Your task to perform on an android device: Open Google Chrome and open the bookmarks view Image 0: 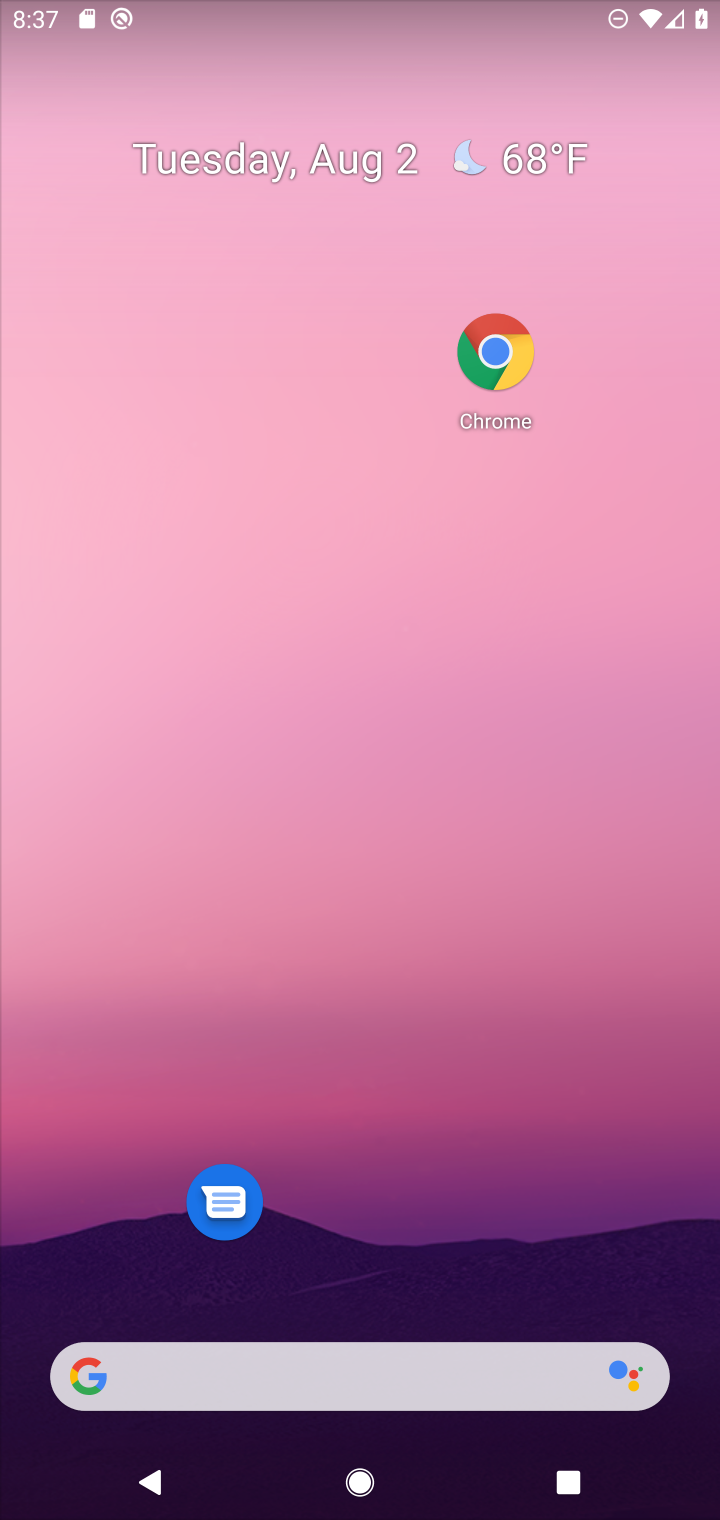
Step 0: click (494, 364)
Your task to perform on an android device: Open Google Chrome and open the bookmarks view Image 1: 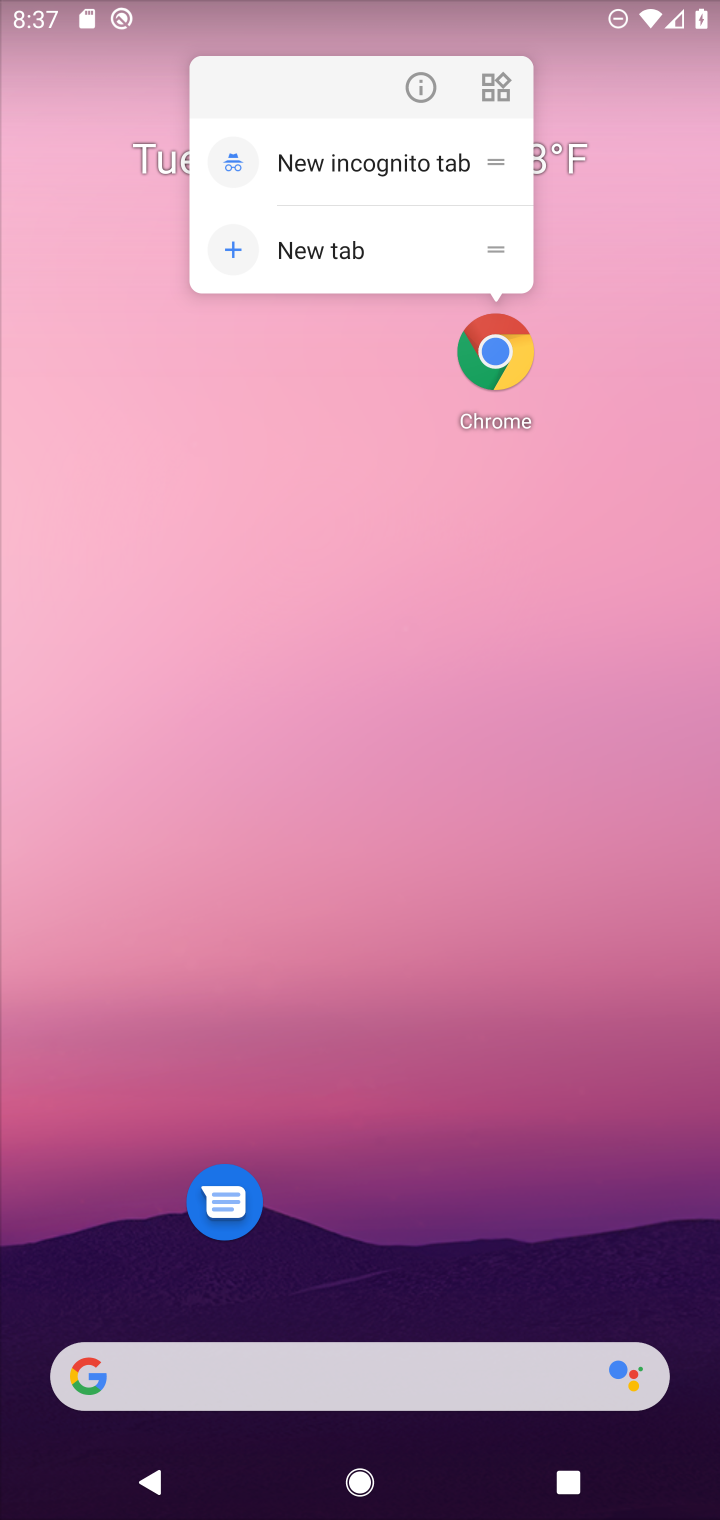
Step 1: click (494, 364)
Your task to perform on an android device: Open Google Chrome and open the bookmarks view Image 2: 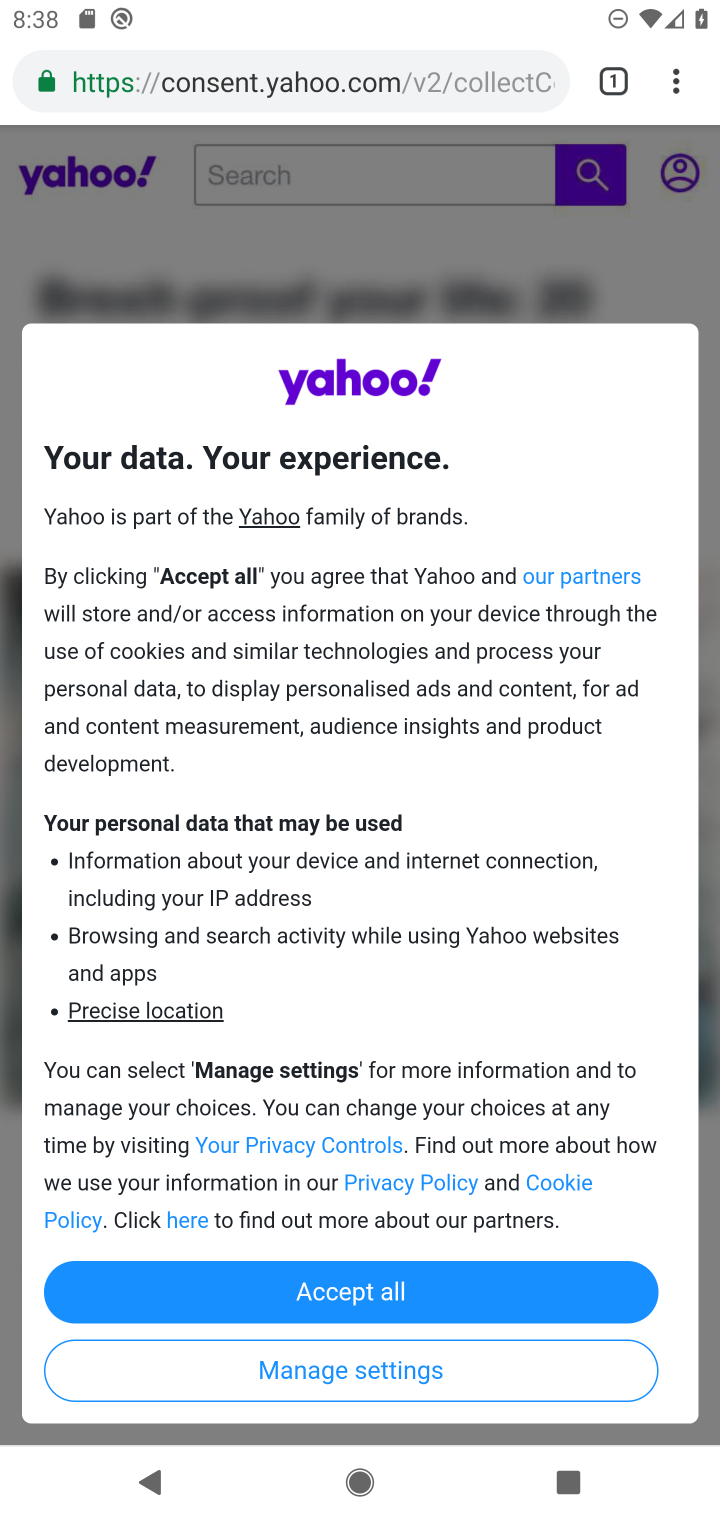
Step 2: click (681, 87)
Your task to perform on an android device: Open Google Chrome and open the bookmarks view Image 3: 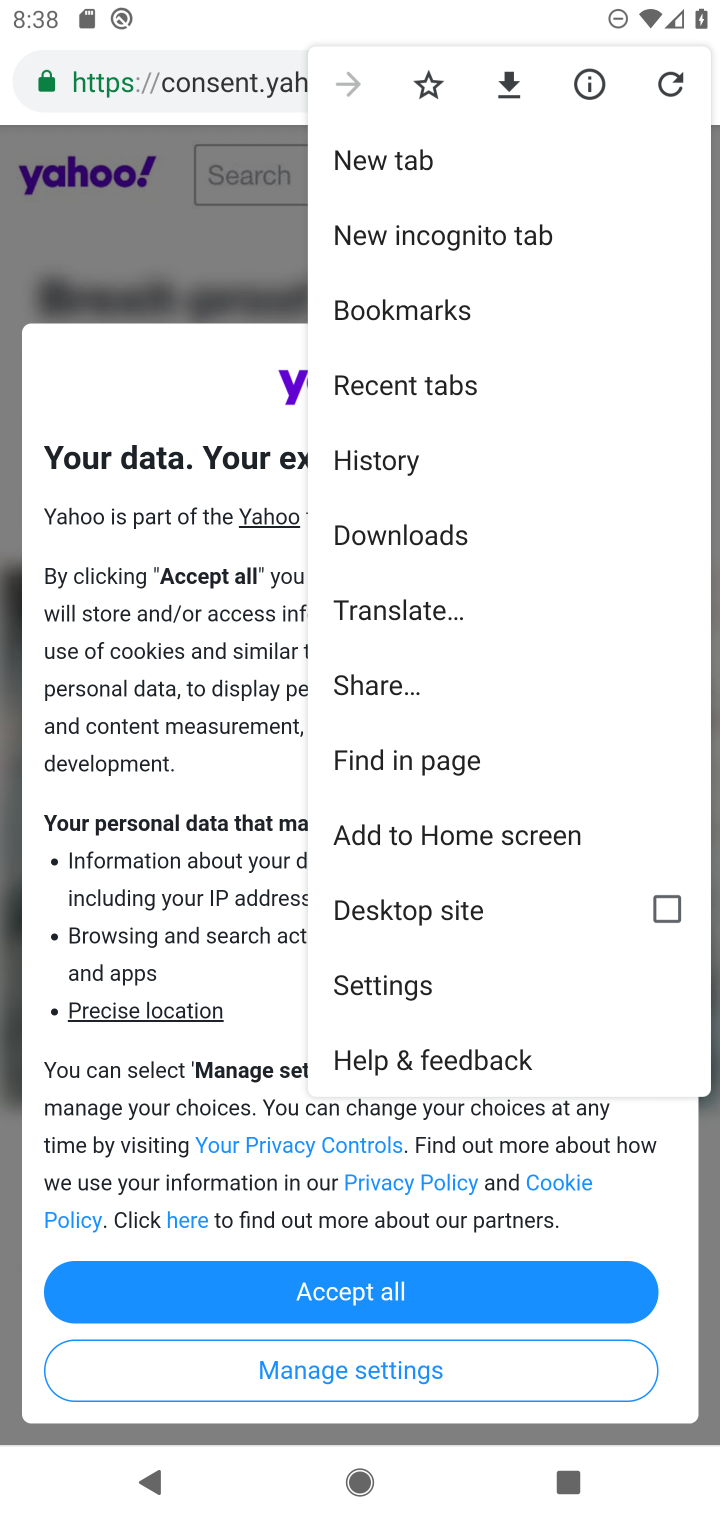
Step 3: click (467, 317)
Your task to perform on an android device: Open Google Chrome and open the bookmarks view Image 4: 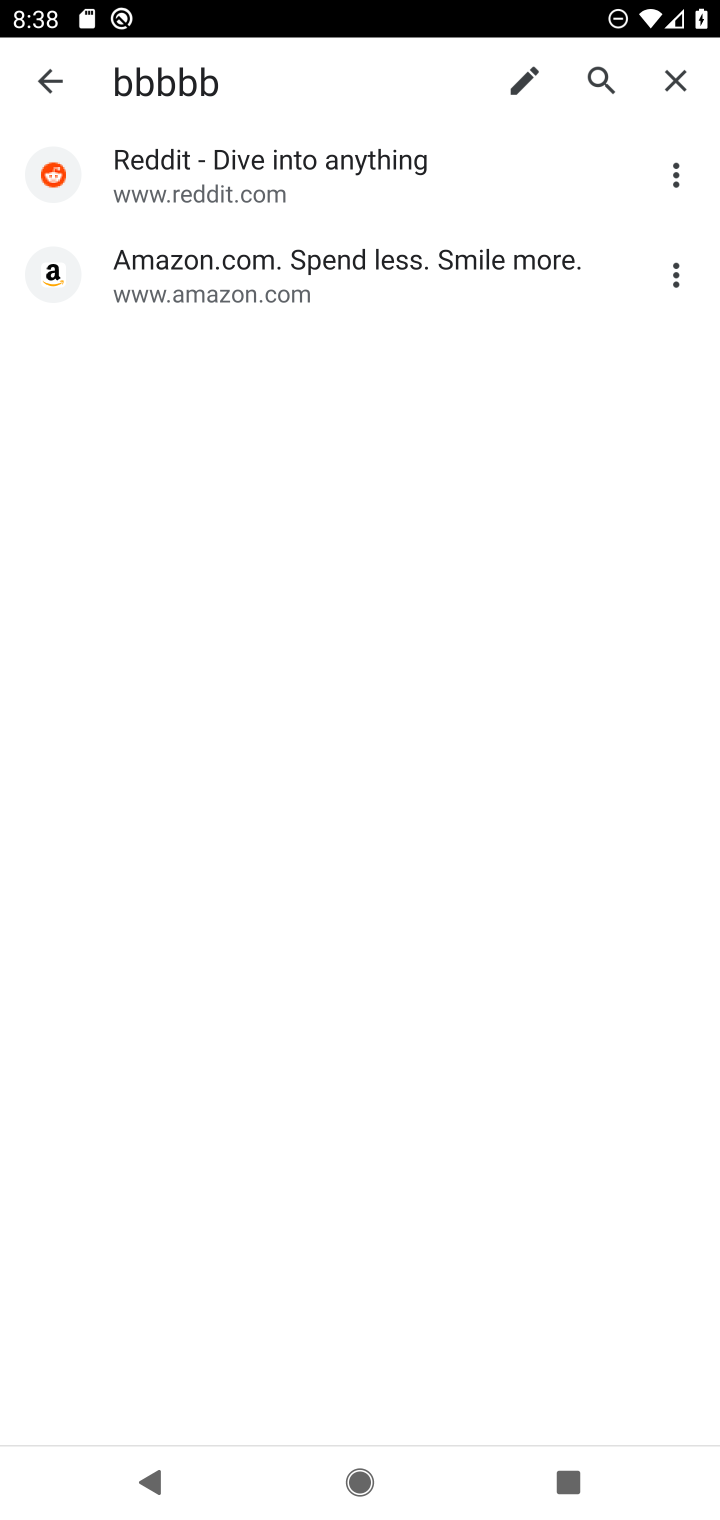
Step 4: task complete